Your task to perform on an android device: uninstall "Life360: Find Family & Friends" Image 0: 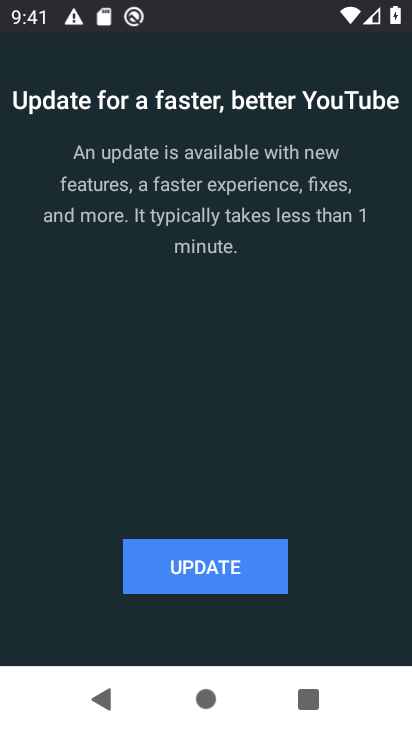
Step 0: press home button
Your task to perform on an android device: uninstall "Life360: Find Family & Friends" Image 1: 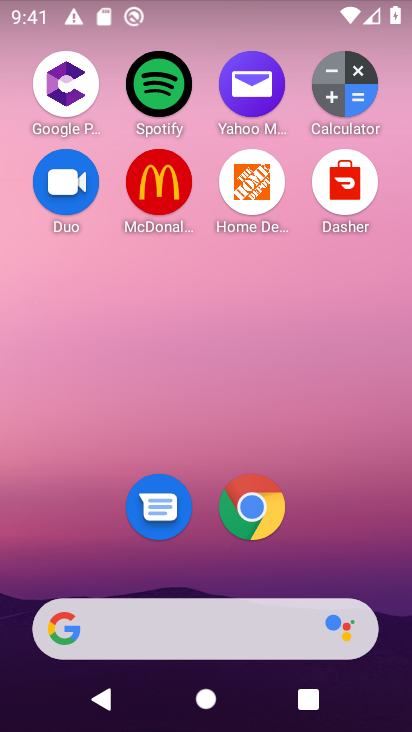
Step 1: drag from (395, 646) to (402, 110)
Your task to perform on an android device: uninstall "Life360: Find Family & Friends" Image 2: 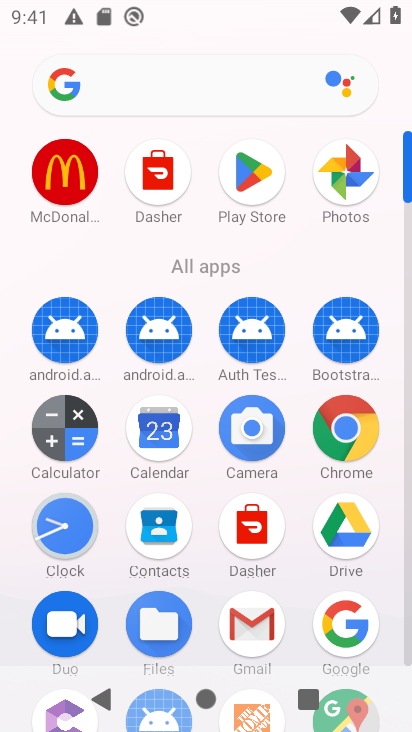
Step 2: click (408, 649)
Your task to perform on an android device: uninstall "Life360: Find Family & Friends" Image 3: 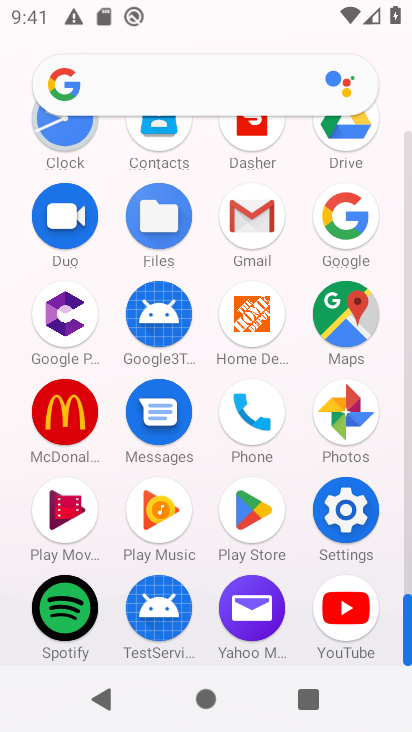
Step 3: click (255, 510)
Your task to perform on an android device: uninstall "Life360: Find Family & Friends" Image 4: 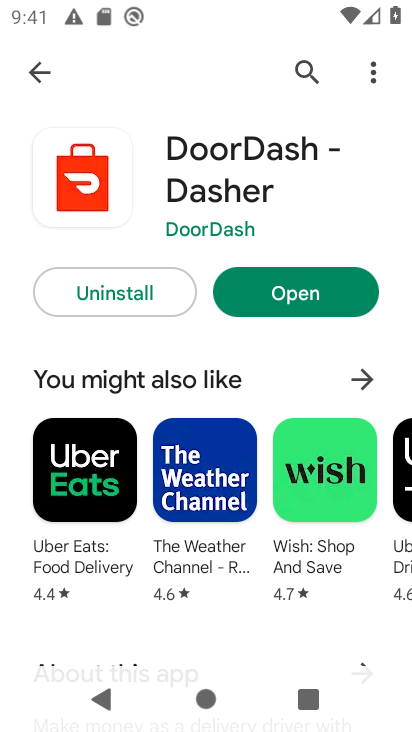
Step 4: click (307, 69)
Your task to perform on an android device: uninstall "Life360: Find Family & Friends" Image 5: 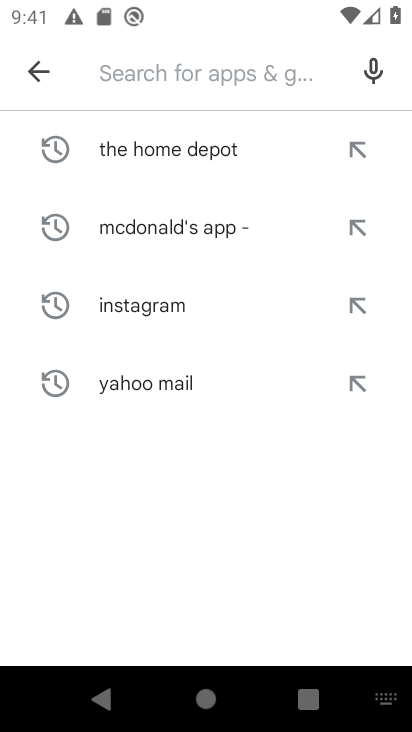
Step 5: type "Life360: Find Family & Friends"
Your task to perform on an android device: uninstall "Life360: Find Family & Friends" Image 6: 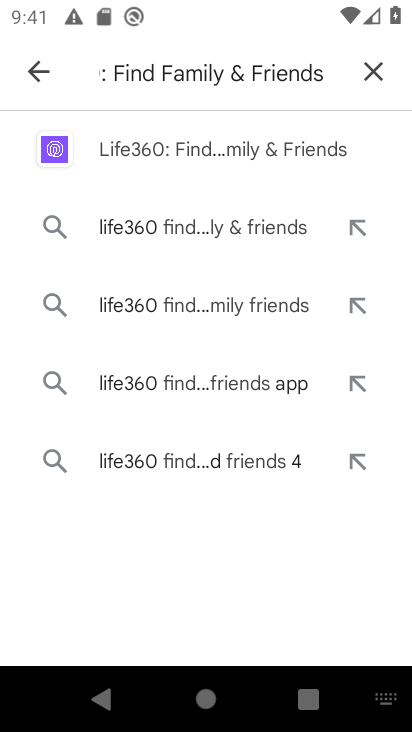
Step 6: click (142, 155)
Your task to perform on an android device: uninstall "Life360: Find Family & Friends" Image 7: 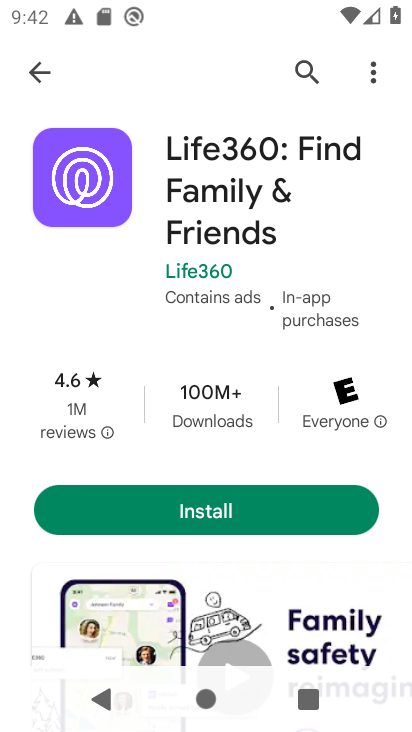
Step 7: task complete